Your task to perform on an android device: add a label to a message in the gmail app Image 0: 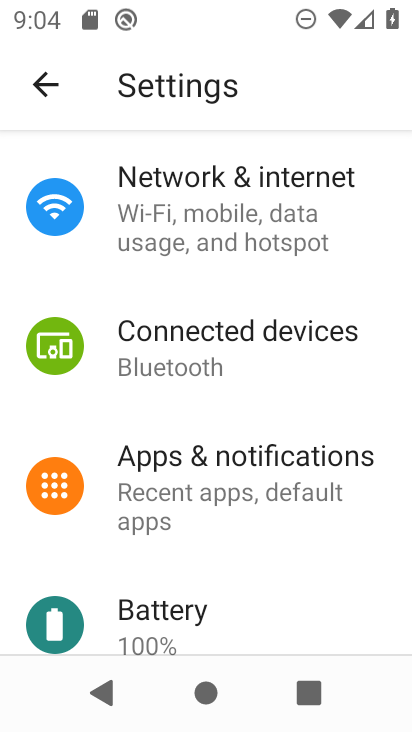
Step 0: press home button
Your task to perform on an android device: add a label to a message in the gmail app Image 1: 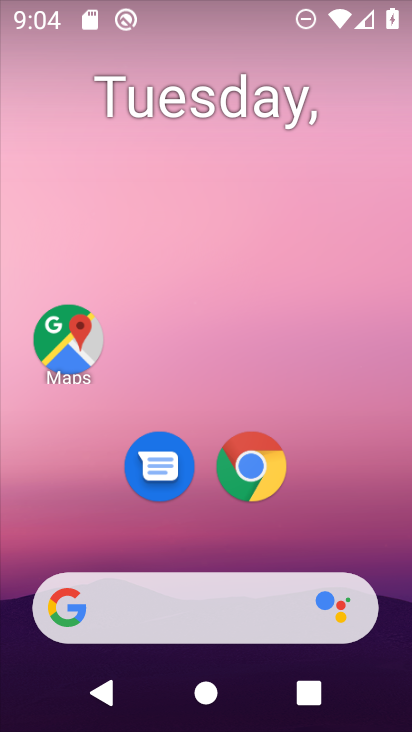
Step 1: drag from (214, 454) to (280, 9)
Your task to perform on an android device: add a label to a message in the gmail app Image 2: 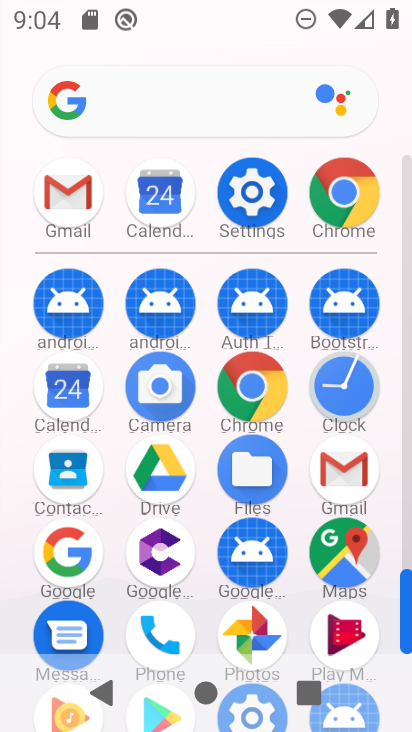
Step 2: click (348, 477)
Your task to perform on an android device: add a label to a message in the gmail app Image 3: 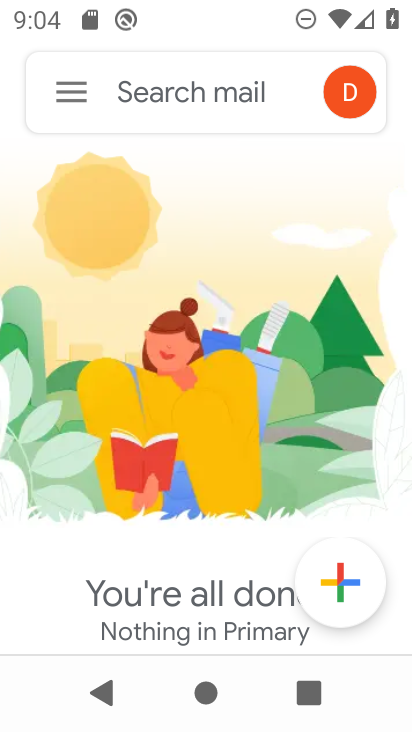
Step 3: click (62, 108)
Your task to perform on an android device: add a label to a message in the gmail app Image 4: 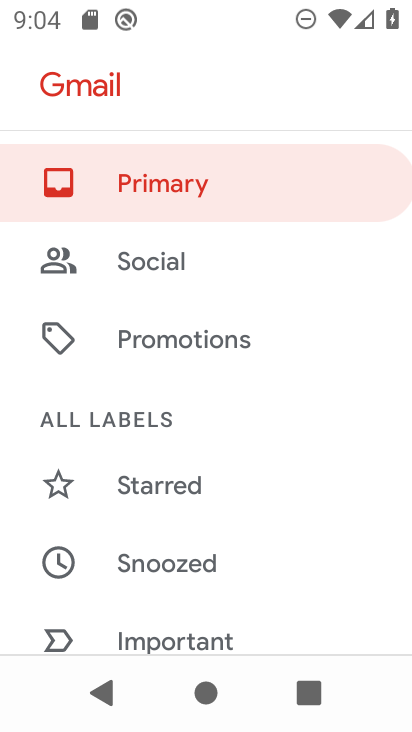
Step 4: drag from (167, 541) to (200, 383)
Your task to perform on an android device: add a label to a message in the gmail app Image 5: 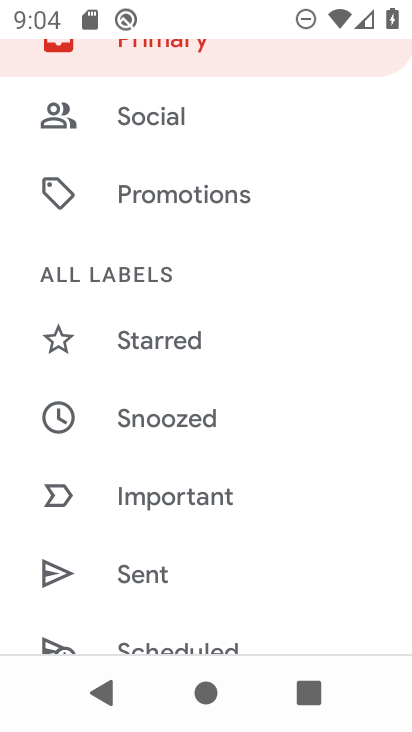
Step 5: drag from (203, 539) to (234, 383)
Your task to perform on an android device: add a label to a message in the gmail app Image 6: 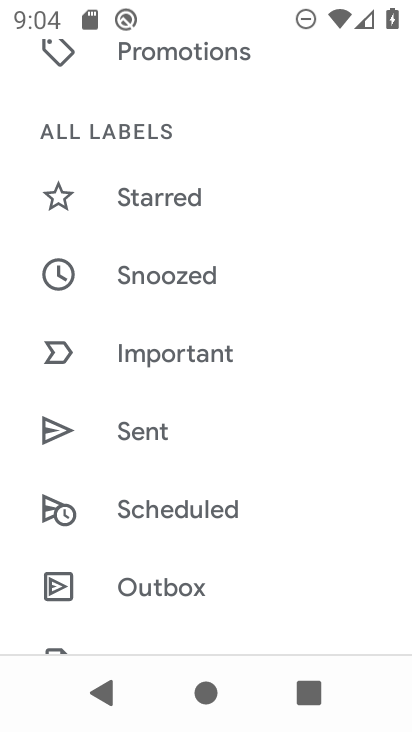
Step 6: drag from (201, 569) to (222, 396)
Your task to perform on an android device: add a label to a message in the gmail app Image 7: 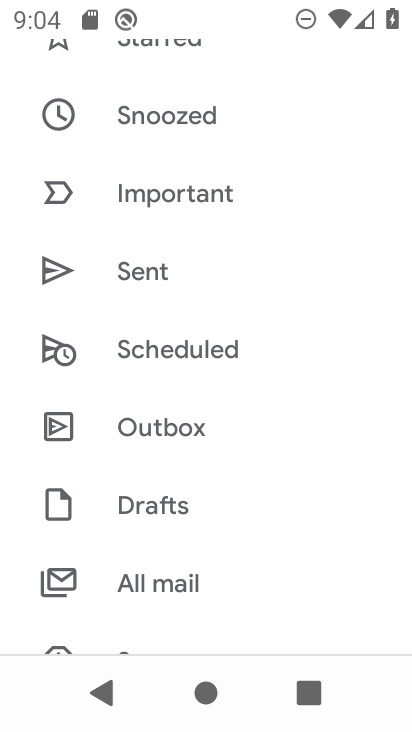
Step 7: click (171, 584)
Your task to perform on an android device: add a label to a message in the gmail app Image 8: 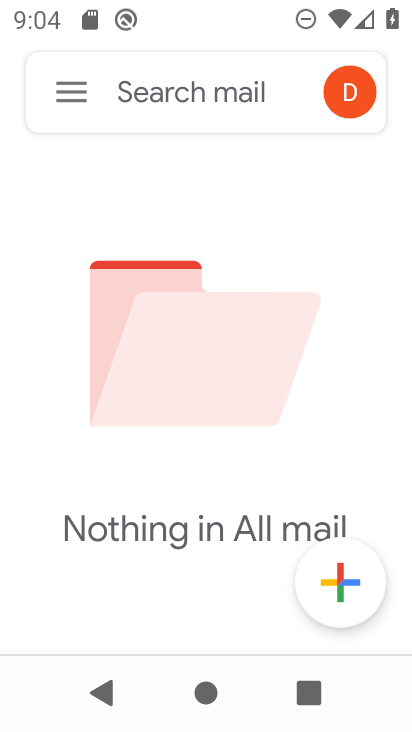
Step 8: task complete